Your task to perform on an android device: install app "Messages" Image 0: 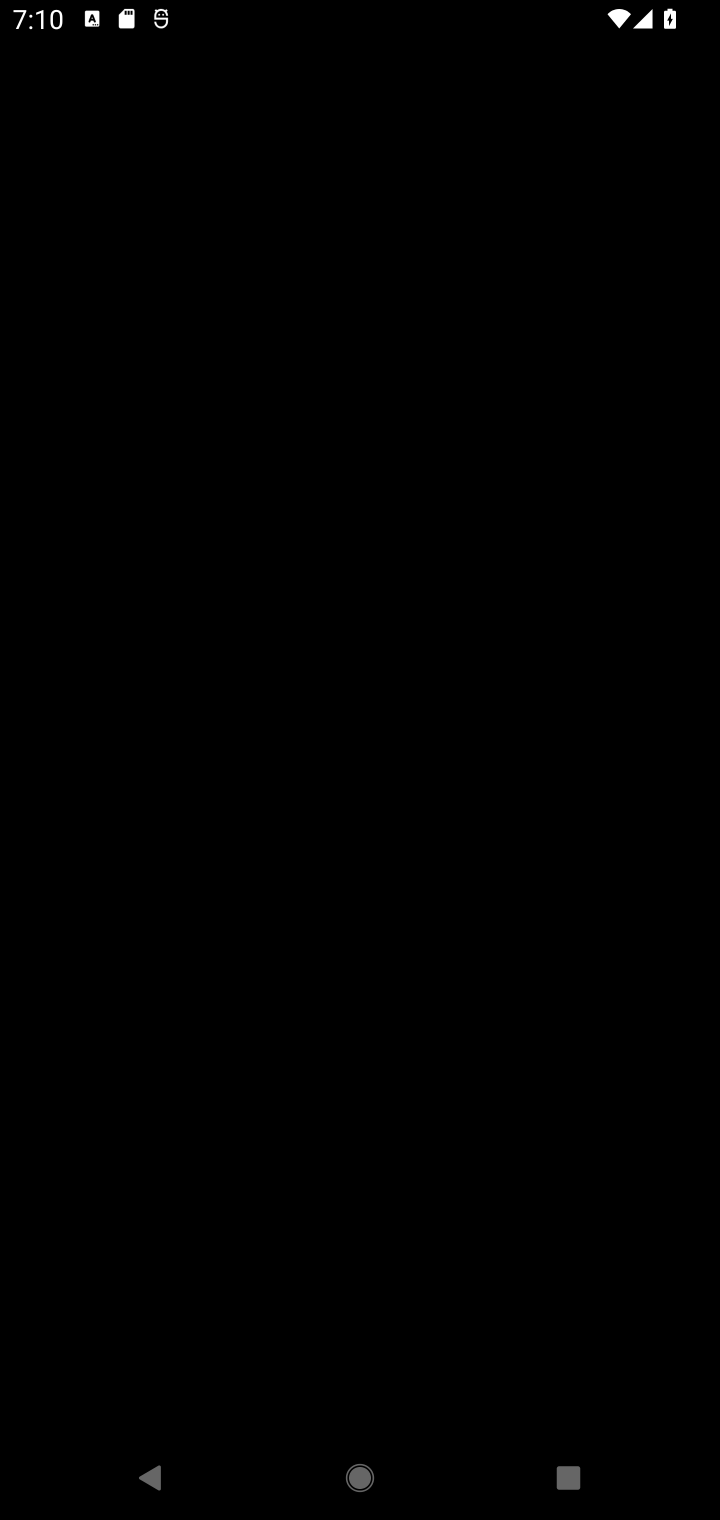
Step 0: press home button
Your task to perform on an android device: install app "Messages" Image 1: 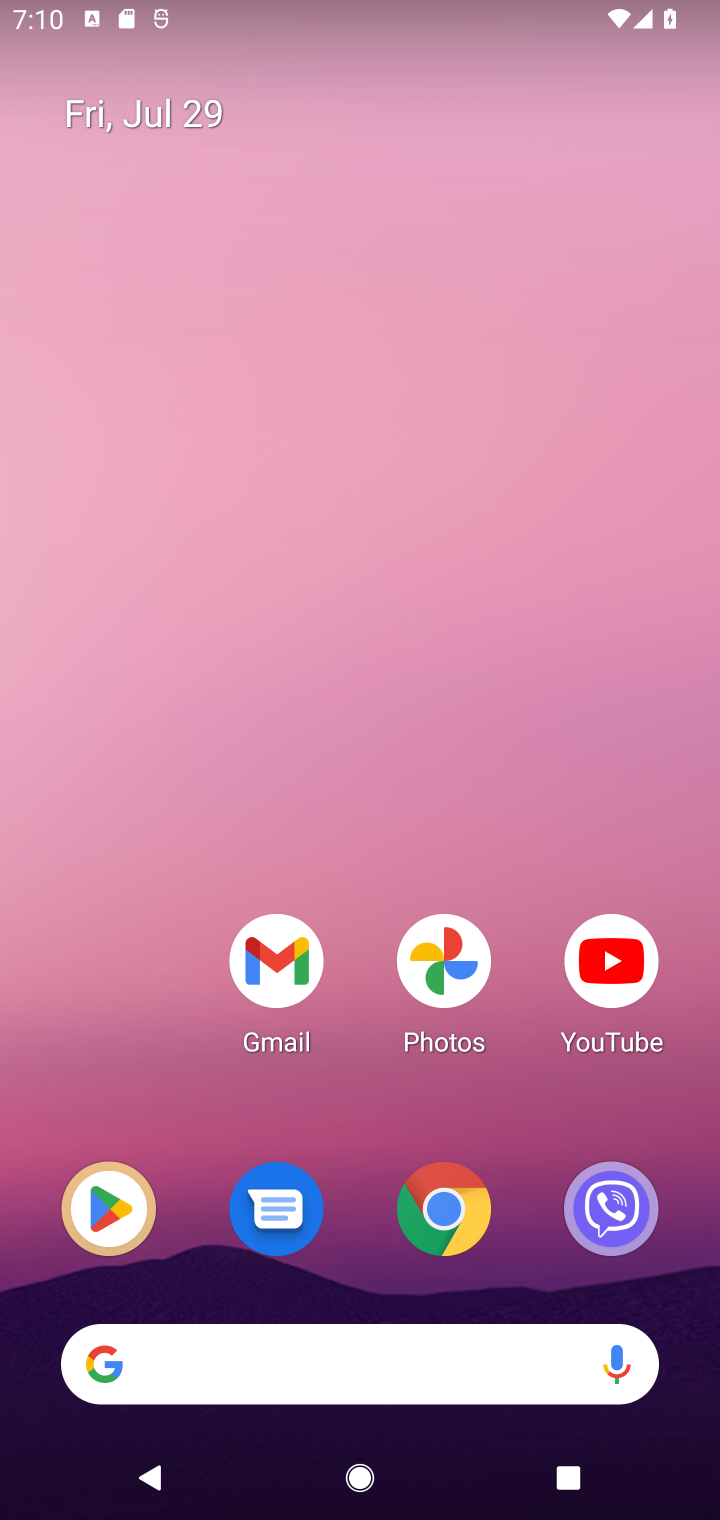
Step 1: click (279, 1232)
Your task to perform on an android device: install app "Messages" Image 2: 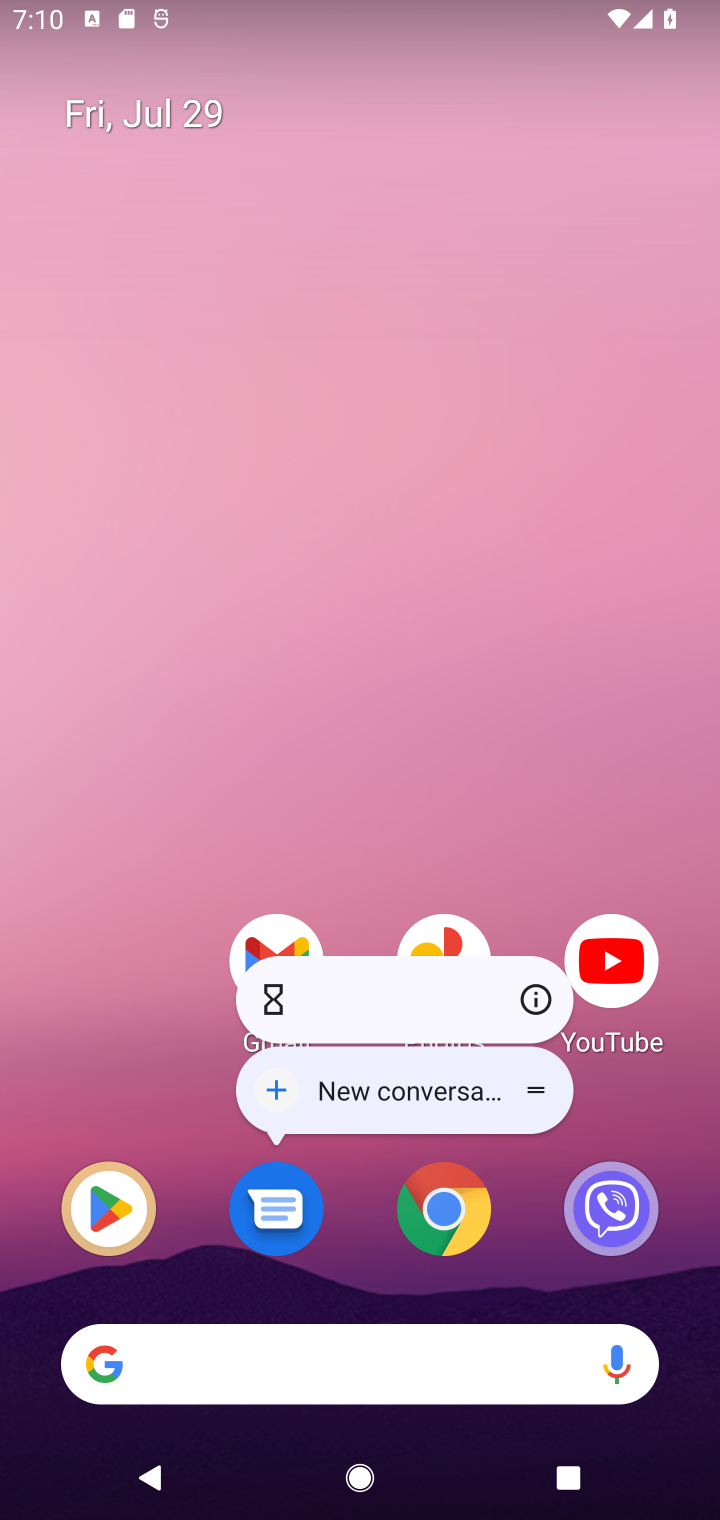
Step 2: click (283, 1215)
Your task to perform on an android device: install app "Messages" Image 3: 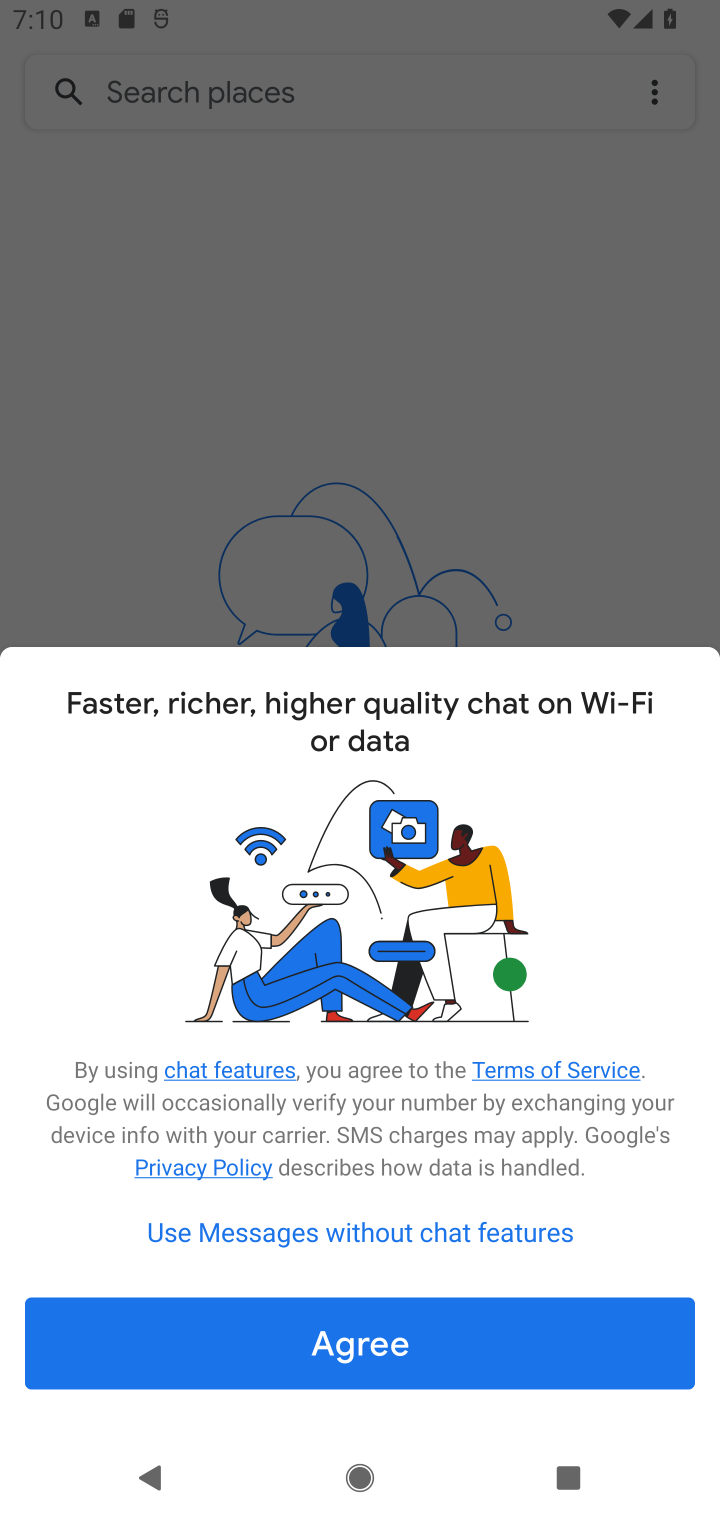
Step 3: task complete